Your task to perform on an android device: toggle priority inbox in the gmail app Image 0: 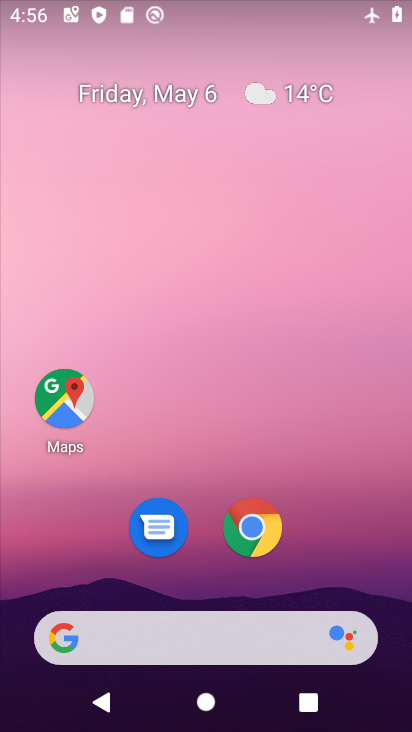
Step 0: drag from (220, 719) to (221, 141)
Your task to perform on an android device: toggle priority inbox in the gmail app Image 1: 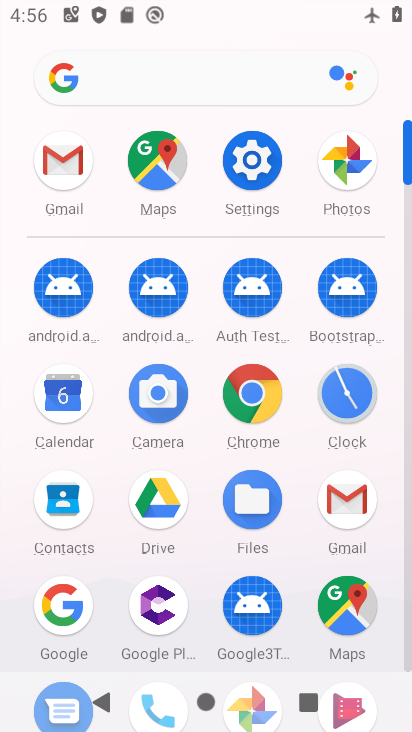
Step 1: click (341, 508)
Your task to perform on an android device: toggle priority inbox in the gmail app Image 2: 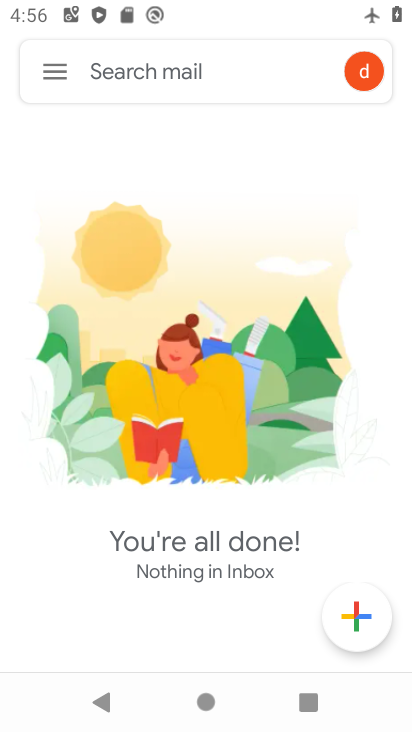
Step 2: click (52, 70)
Your task to perform on an android device: toggle priority inbox in the gmail app Image 3: 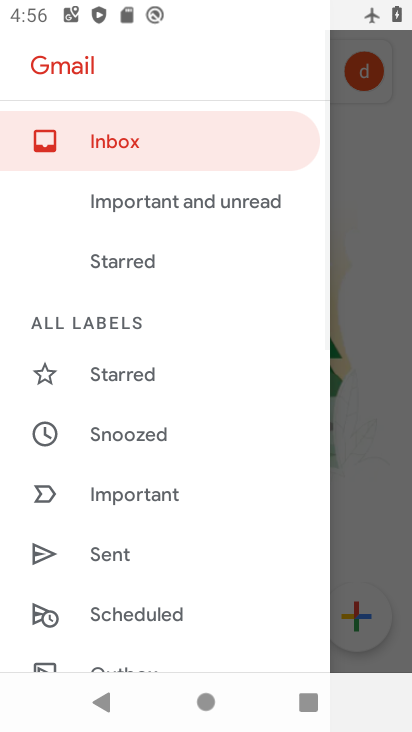
Step 3: drag from (154, 653) to (149, 196)
Your task to perform on an android device: toggle priority inbox in the gmail app Image 4: 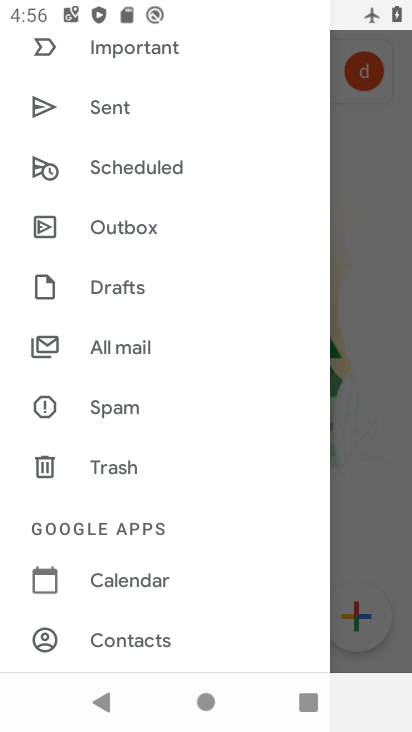
Step 4: drag from (136, 625) to (156, 250)
Your task to perform on an android device: toggle priority inbox in the gmail app Image 5: 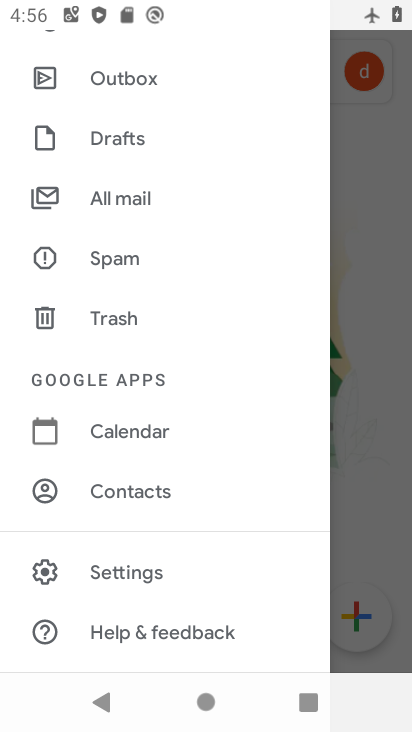
Step 5: click (123, 571)
Your task to perform on an android device: toggle priority inbox in the gmail app Image 6: 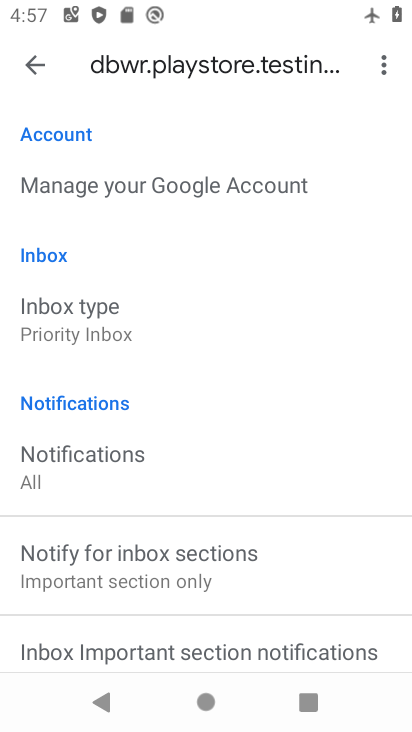
Step 6: click (83, 331)
Your task to perform on an android device: toggle priority inbox in the gmail app Image 7: 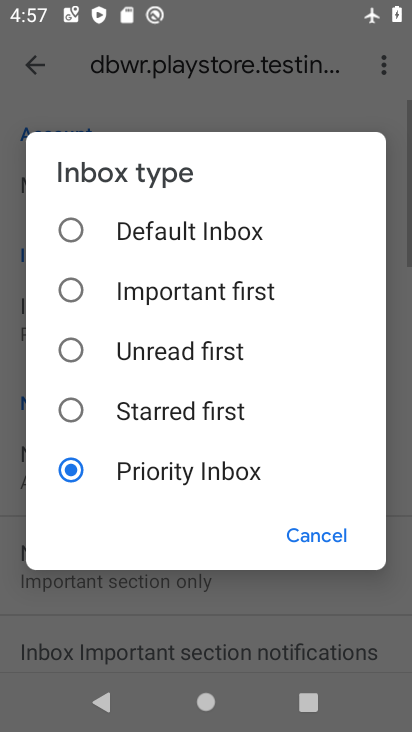
Step 7: click (129, 229)
Your task to perform on an android device: toggle priority inbox in the gmail app Image 8: 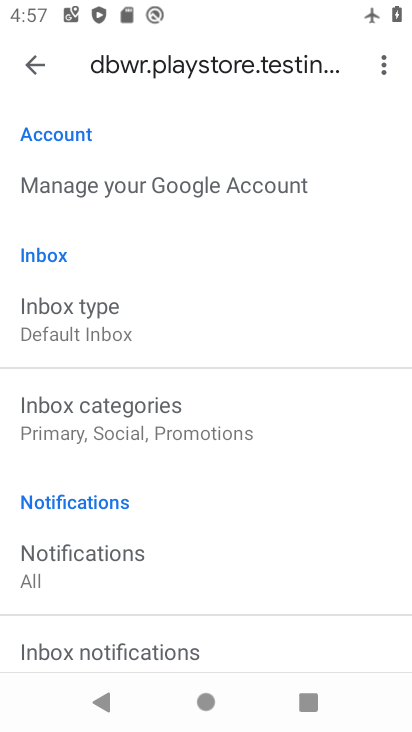
Step 8: task complete